Your task to perform on an android device: delete a single message in the gmail app Image 0: 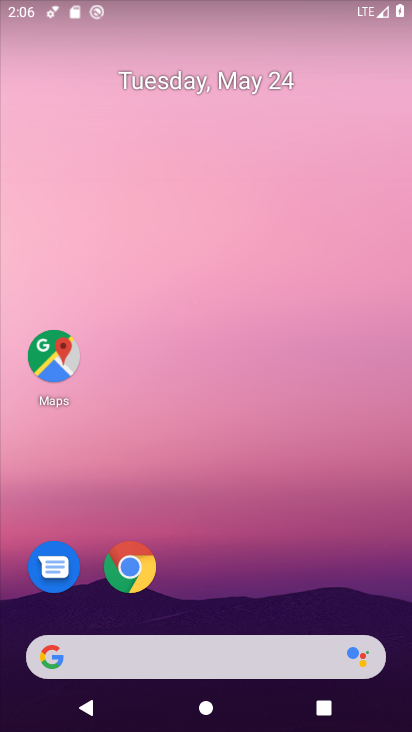
Step 0: drag from (217, 574) to (332, 52)
Your task to perform on an android device: delete a single message in the gmail app Image 1: 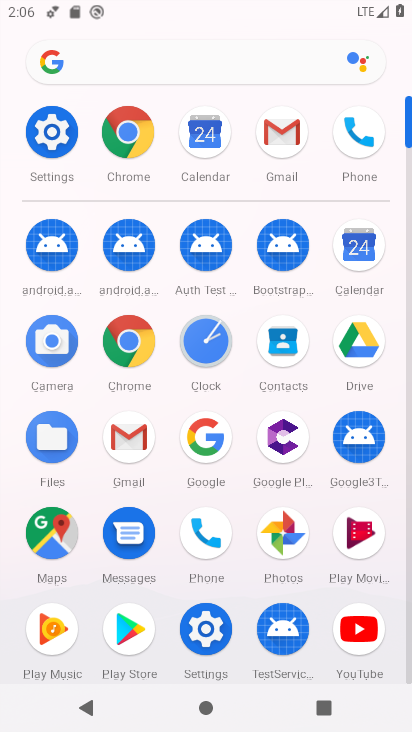
Step 1: click (118, 433)
Your task to perform on an android device: delete a single message in the gmail app Image 2: 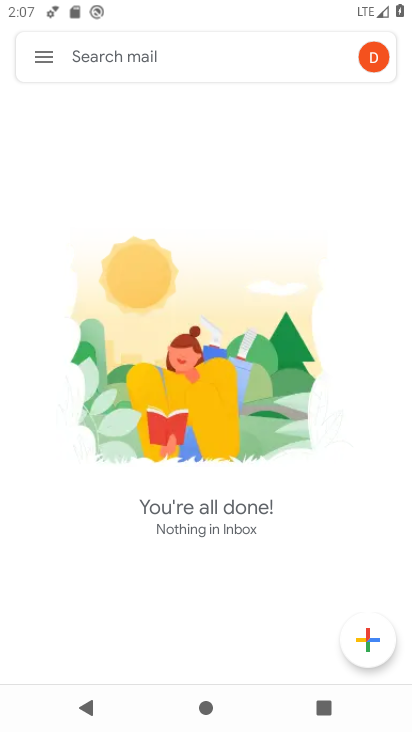
Step 2: click (45, 53)
Your task to perform on an android device: delete a single message in the gmail app Image 3: 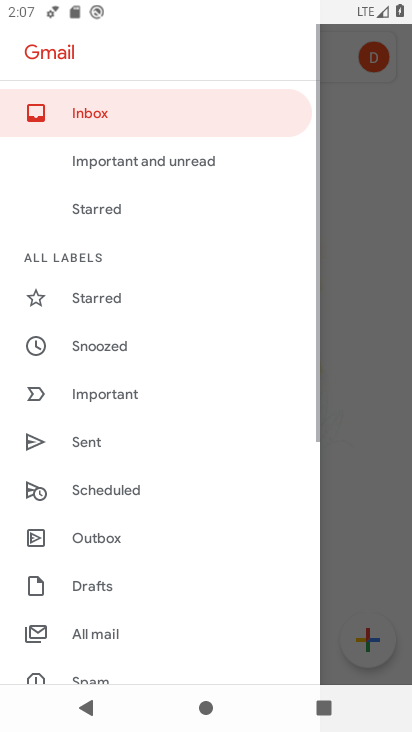
Step 3: drag from (126, 601) to (160, 498)
Your task to perform on an android device: delete a single message in the gmail app Image 4: 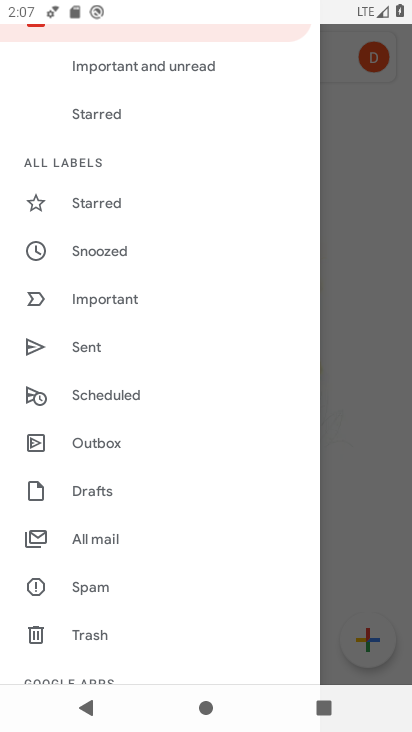
Step 4: click (94, 551)
Your task to perform on an android device: delete a single message in the gmail app Image 5: 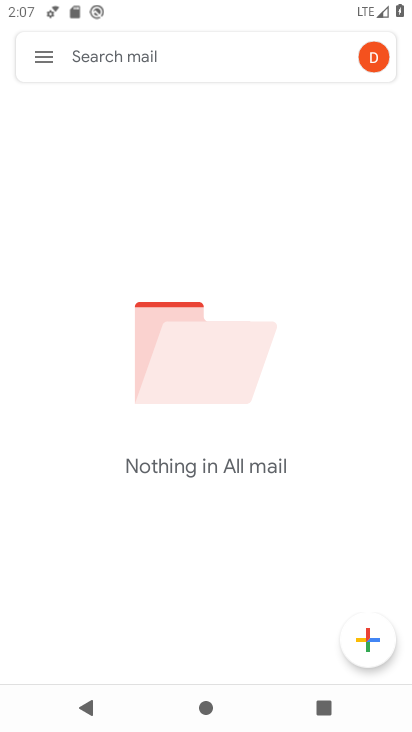
Step 5: task complete